Your task to perform on an android device: move a message to another label in the gmail app Image 0: 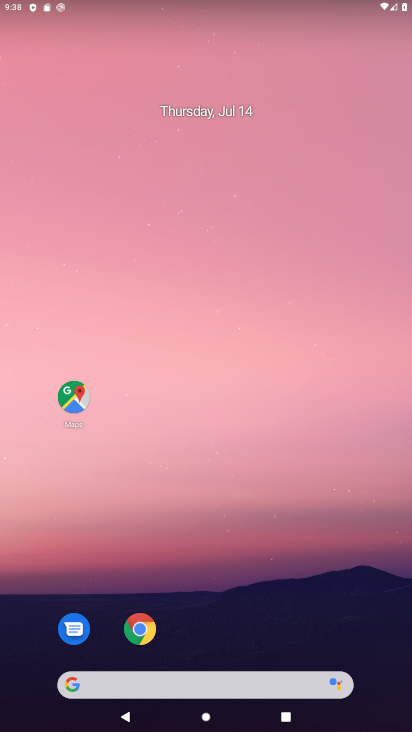
Step 0: drag from (207, 618) to (251, 151)
Your task to perform on an android device: move a message to another label in the gmail app Image 1: 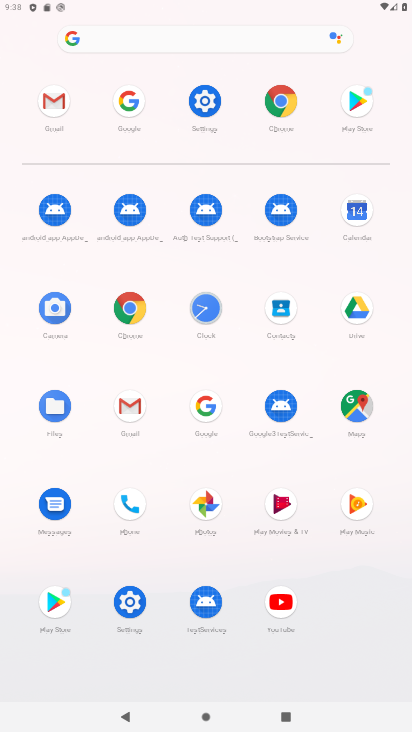
Step 1: click (121, 399)
Your task to perform on an android device: move a message to another label in the gmail app Image 2: 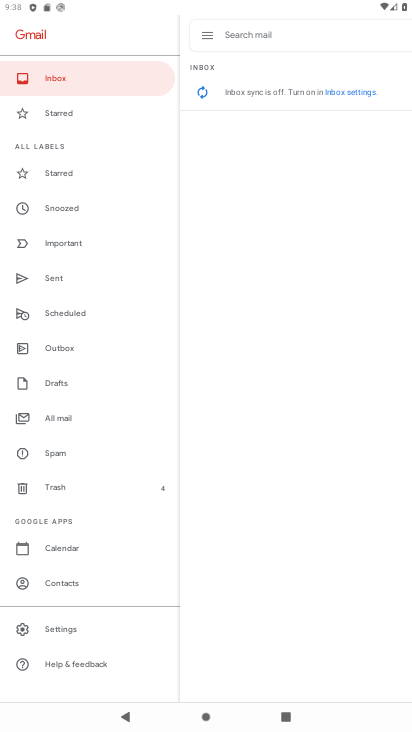
Step 2: click (70, 627)
Your task to perform on an android device: move a message to another label in the gmail app Image 3: 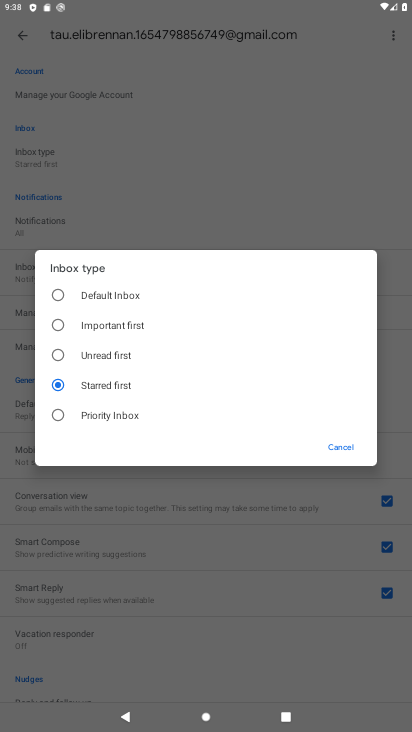
Step 3: click (78, 295)
Your task to perform on an android device: move a message to another label in the gmail app Image 4: 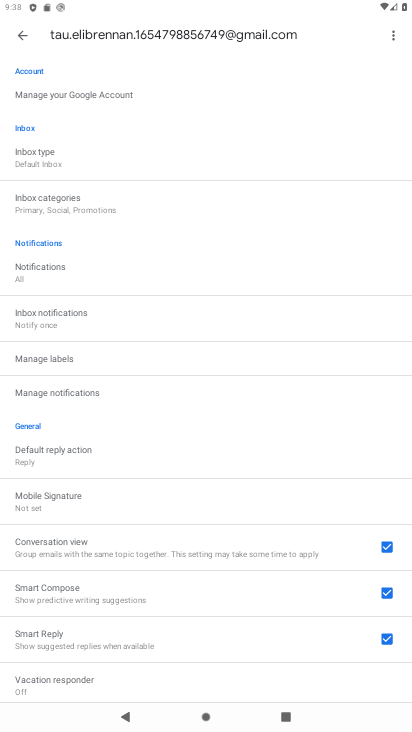
Step 4: task complete